Your task to perform on an android device: Search for pizza restaurants on Maps Image 0: 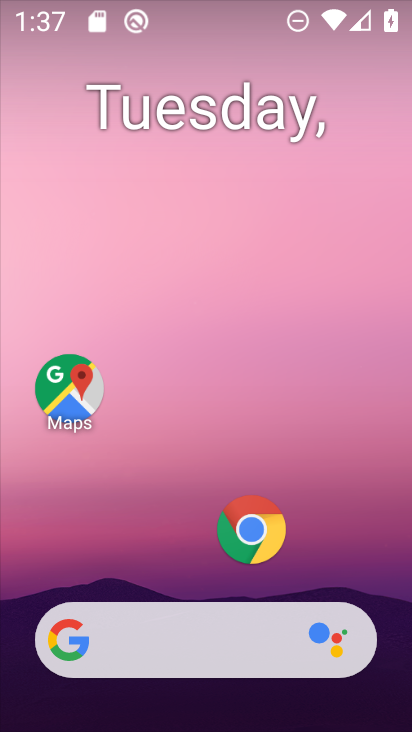
Step 0: press home button
Your task to perform on an android device: Search for pizza restaurants on Maps Image 1: 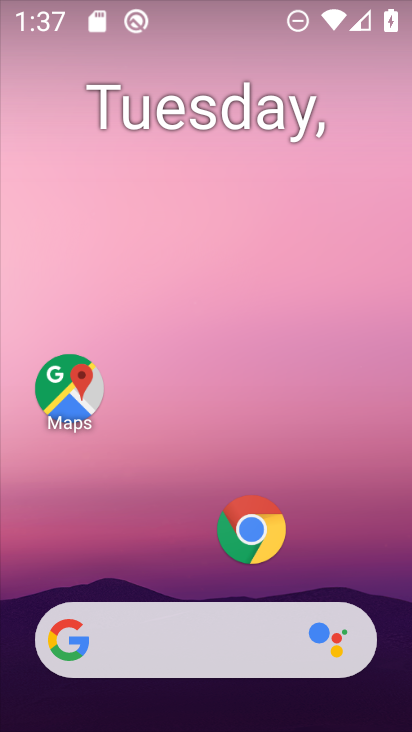
Step 1: drag from (227, 694) to (289, 4)
Your task to perform on an android device: Search for pizza restaurants on Maps Image 2: 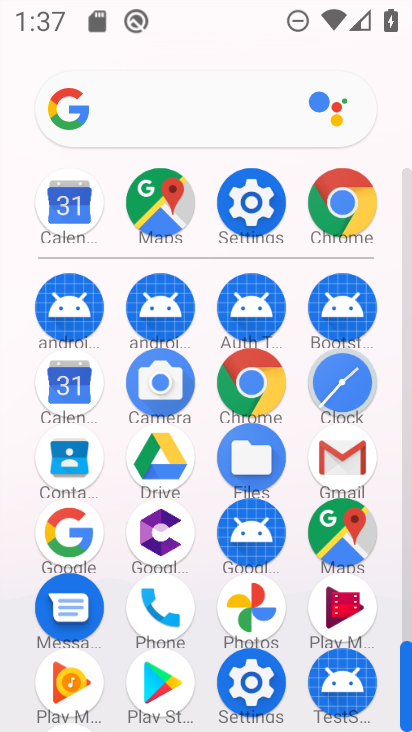
Step 2: click (171, 200)
Your task to perform on an android device: Search for pizza restaurants on Maps Image 3: 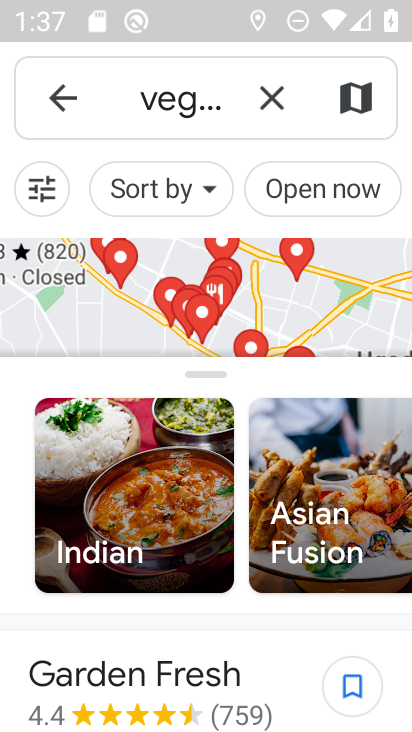
Step 3: click (269, 102)
Your task to perform on an android device: Search for pizza restaurants on Maps Image 4: 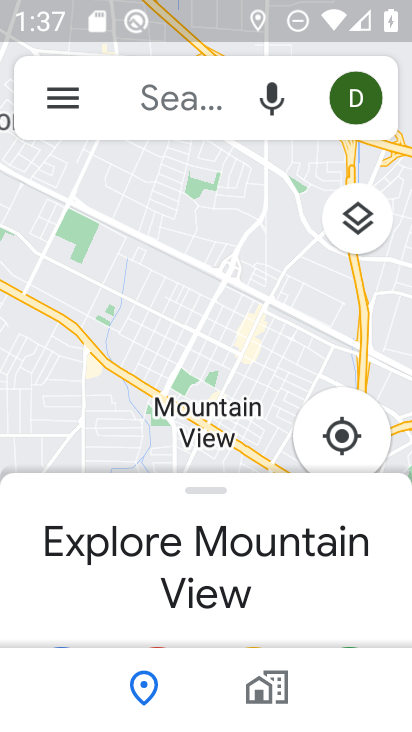
Step 4: click (206, 90)
Your task to perform on an android device: Search for pizza restaurants on Maps Image 5: 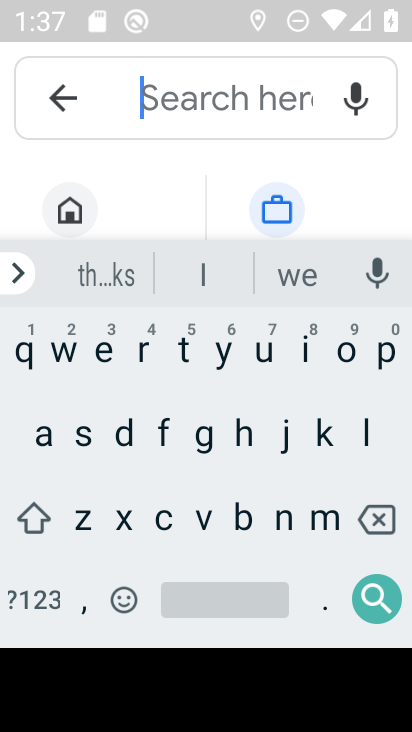
Step 5: click (381, 361)
Your task to perform on an android device: Search for pizza restaurants on Maps Image 6: 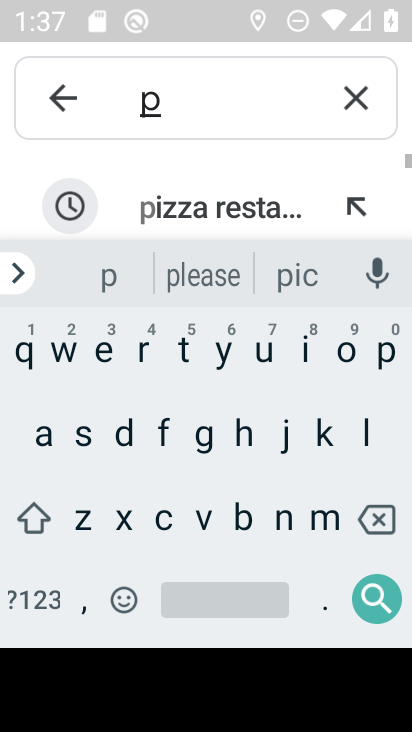
Step 6: click (308, 351)
Your task to perform on an android device: Search for pizza restaurants on Maps Image 7: 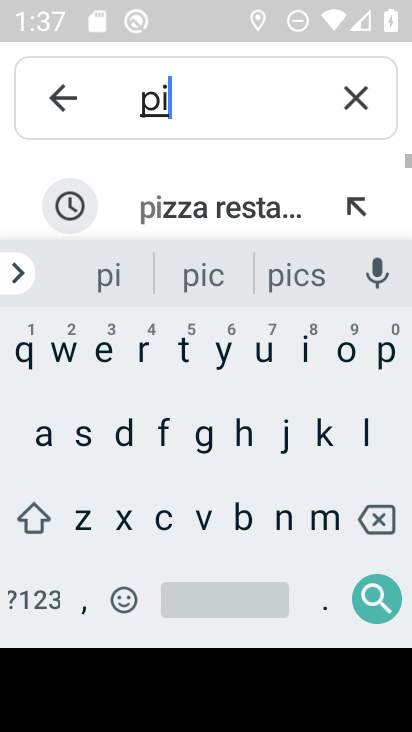
Step 7: click (91, 516)
Your task to perform on an android device: Search for pizza restaurants on Maps Image 8: 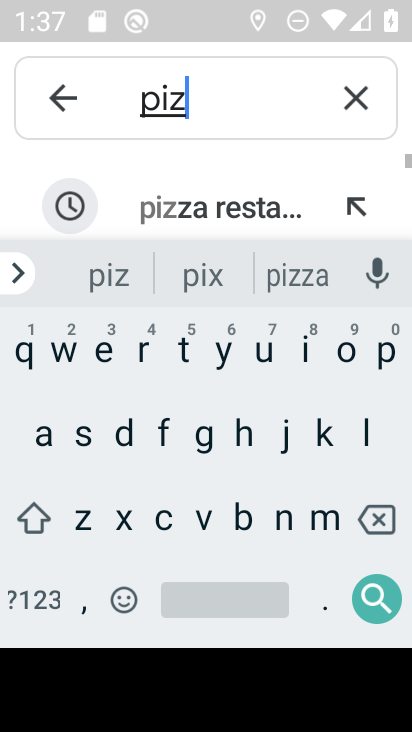
Step 8: click (188, 214)
Your task to perform on an android device: Search for pizza restaurants on Maps Image 9: 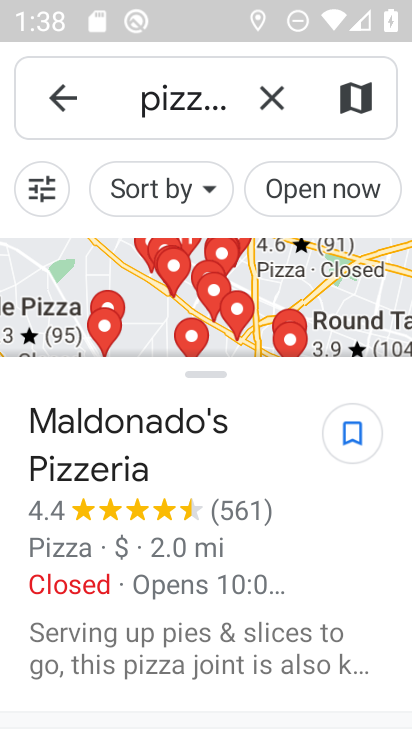
Step 9: click (131, 279)
Your task to perform on an android device: Search for pizza restaurants on Maps Image 10: 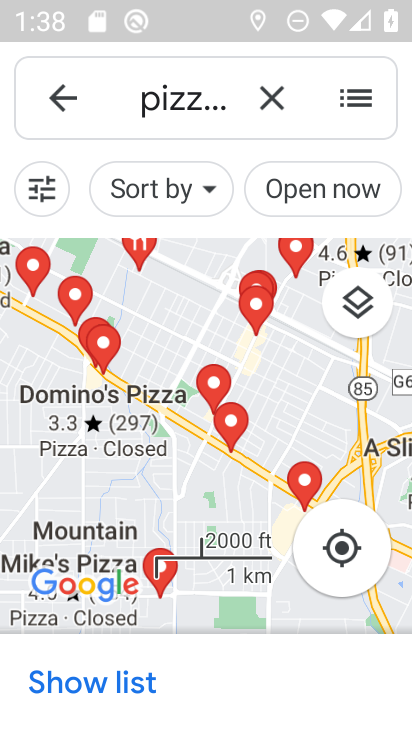
Step 10: task complete